Your task to perform on an android device: What is the news today? Image 0: 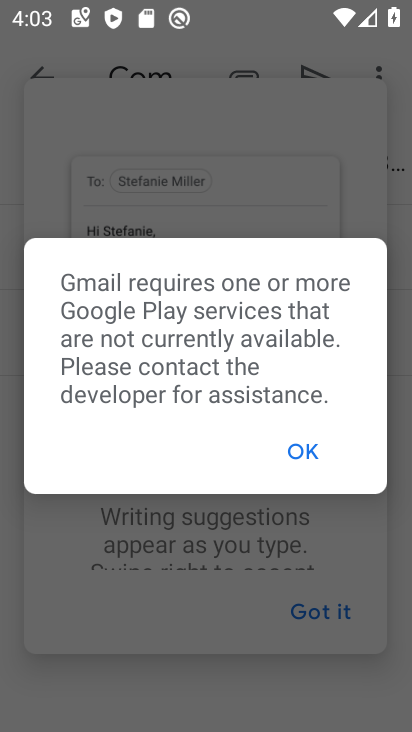
Step 0: click (286, 450)
Your task to perform on an android device: What is the news today? Image 1: 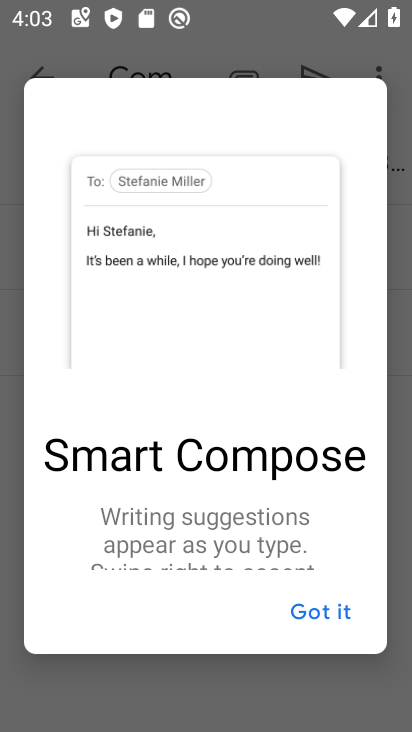
Step 1: press back button
Your task to perform on an android device: What is the news today? Image 2: 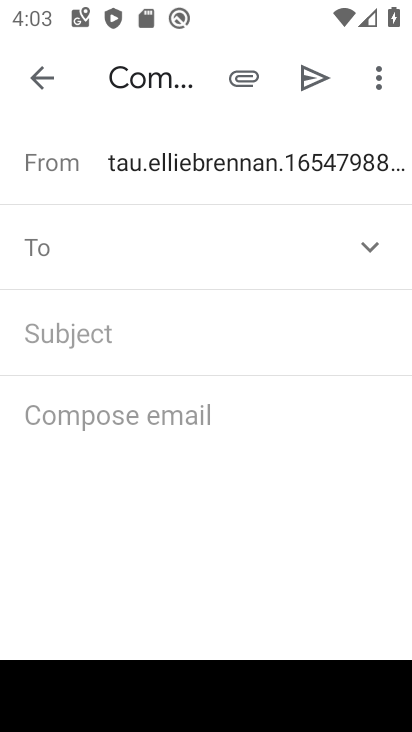
Step 2: press home button
Your task to perform on an android device: What is the news today? Image 3: 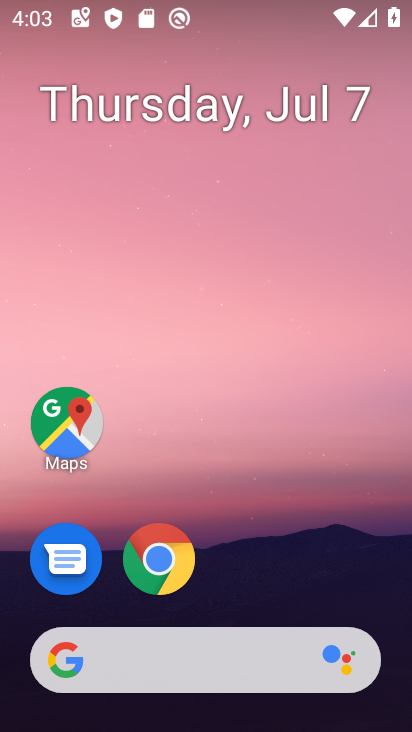
Step 3: click (175, 650)
Your task to perform on an android device: What is the news today? Image 4: 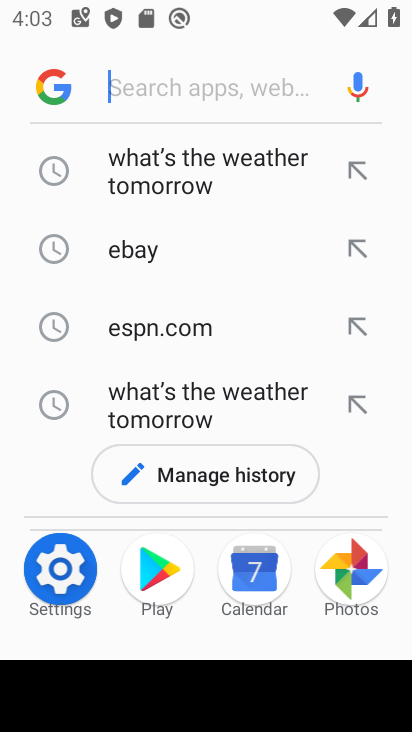
Step 4: click (171, 74)
Your task to perform on an android device: What is the news today? Image 5: 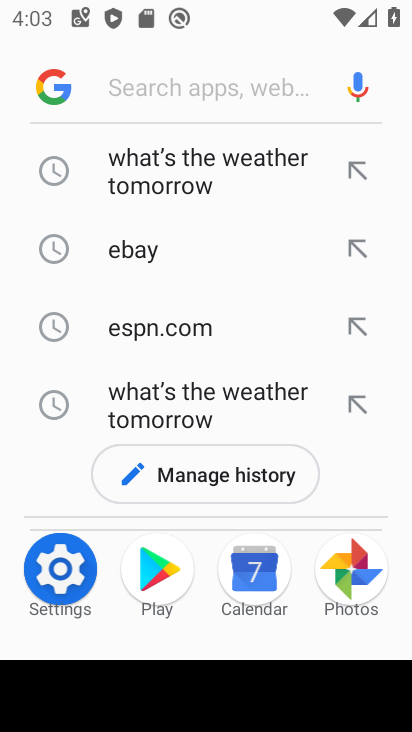
Step 5: type "news today"
Your task to perform on an android device: What is the news today? Image 6: 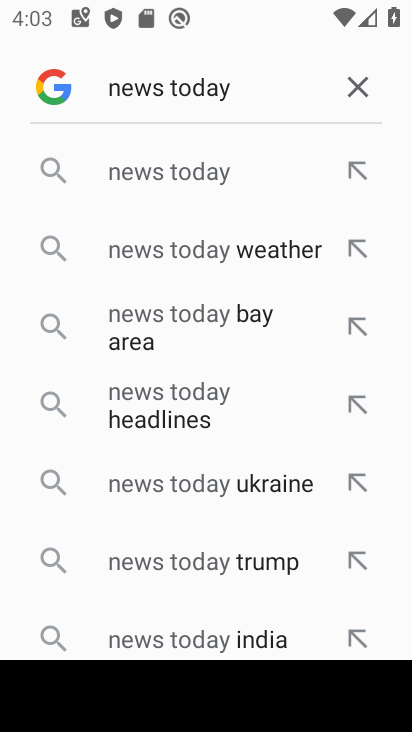
Step 6: click (183, 176)
Your task to perform on an android device: What is the news today? Image 7: 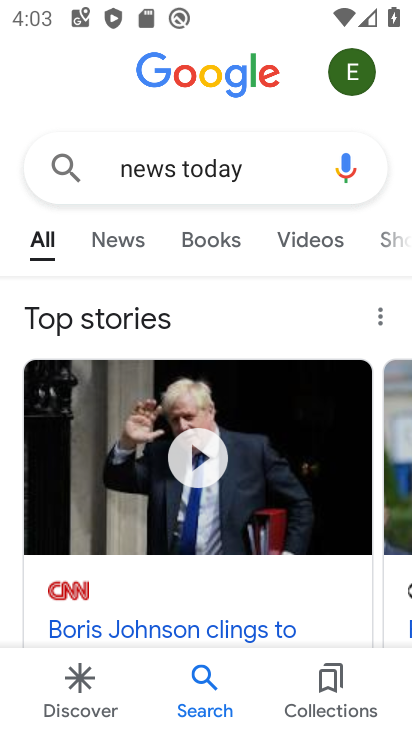
Step 7: task complete